Your task to perform on an android device: open app "Fetch Rewards" Image 0: 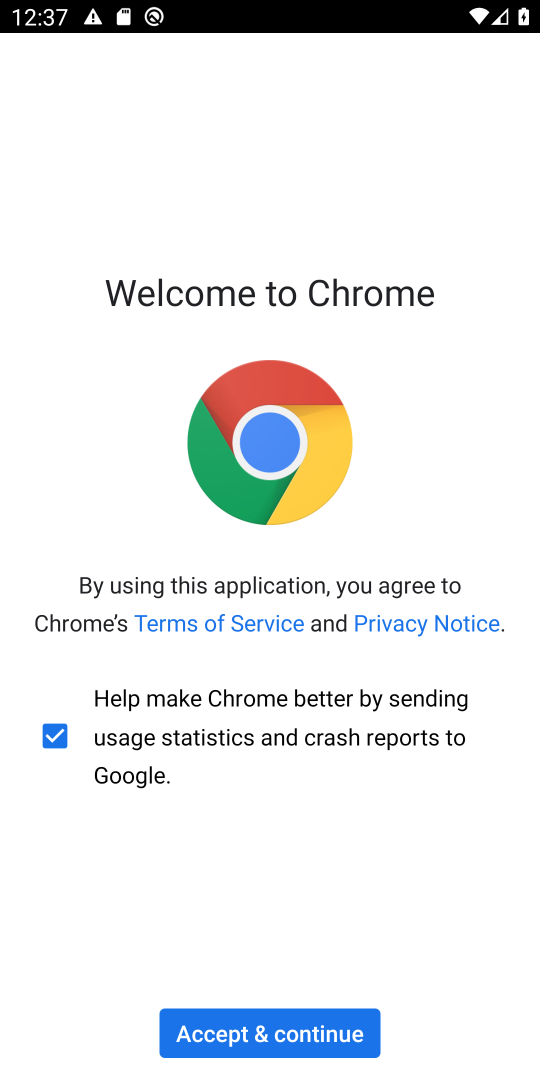
Step 0: press home button
Your task to perform on an android device: open app "Fetch Rewards" Image 1: 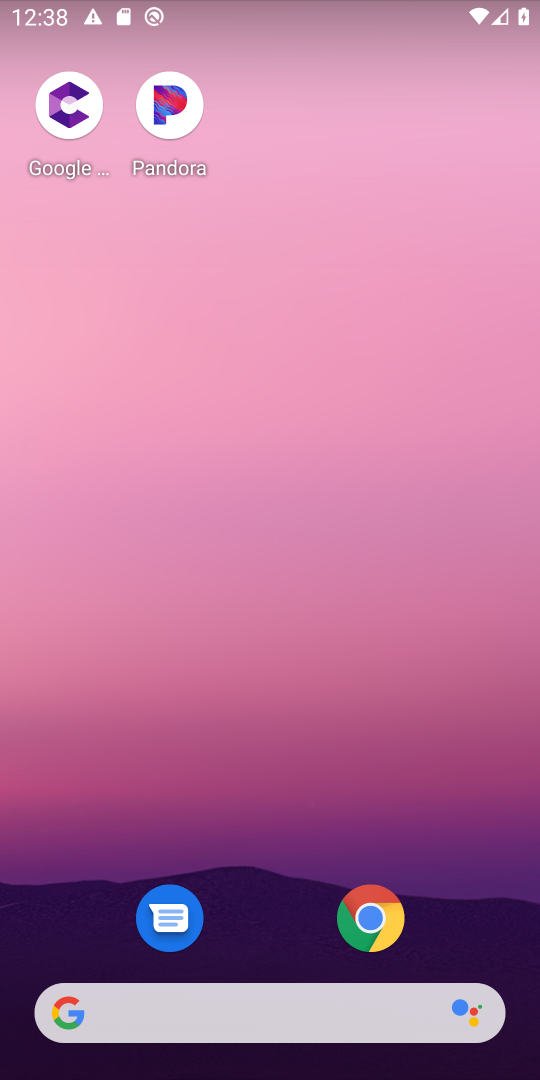
Step 1: drag from (296, 859) to (296, 10)
Your task to perform on an android device: open app "Fetch Rewards" Image 2: 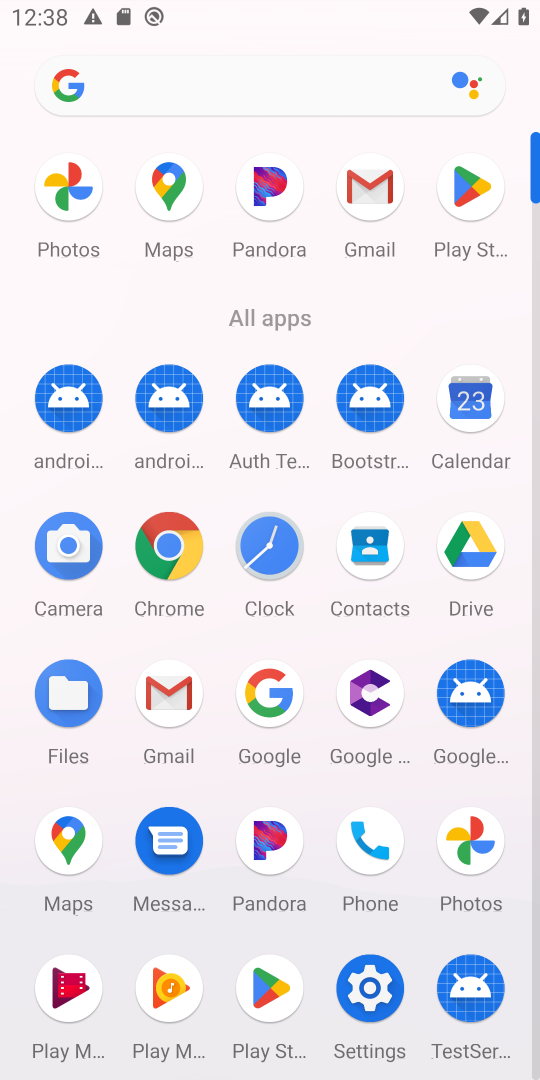
Step 2: click (456, 181)
Your task to perform on an android device: open app "Fetch Rewards" Image 3: 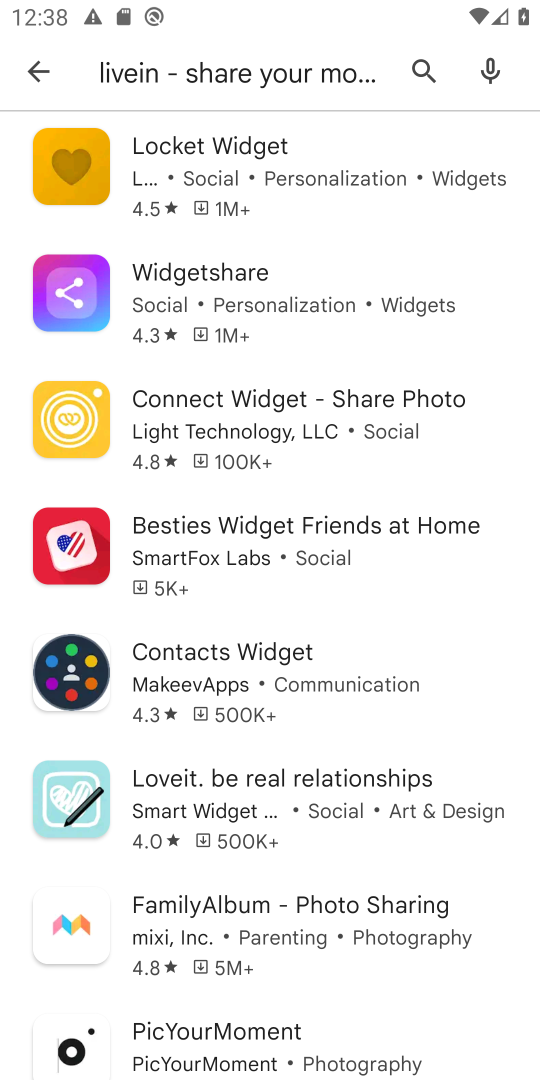
Step 3: click (436, 74)
Your task to perform on an android device: open app "Fetch Rewards" Image 4: 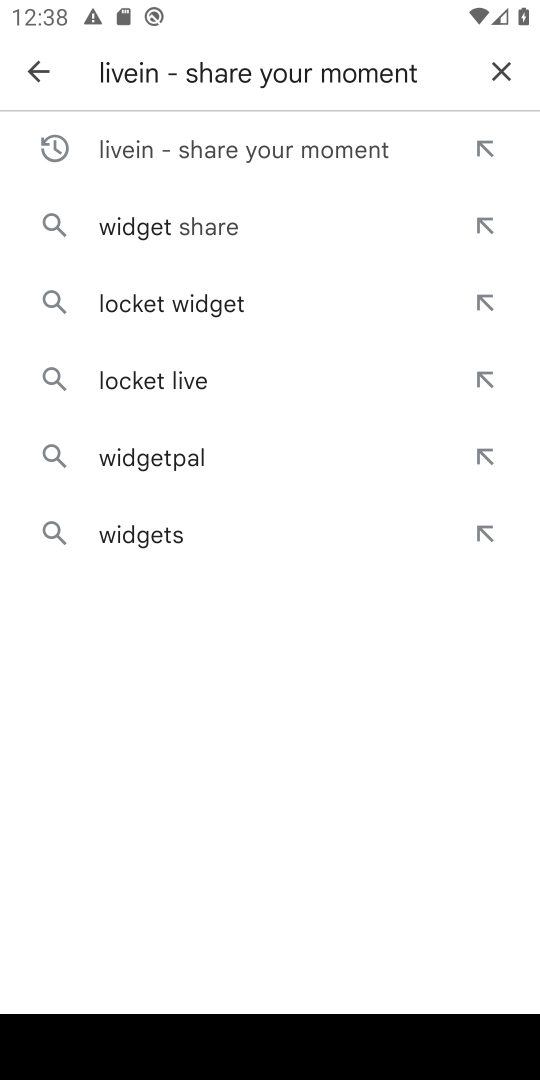
Step 4: click (503, 74)
Your task to perform on an android device: open app "Fetch Rewards" Image 5: 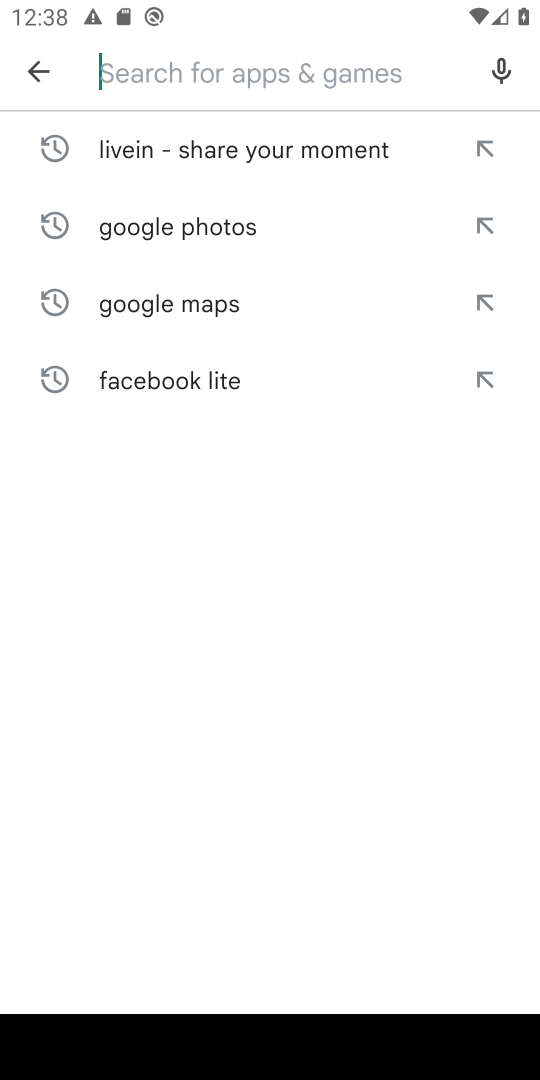
Step 5: type "Fetch Rewards"
Your task to perform on an android device: open app "Fetch Rewards" Image 6: 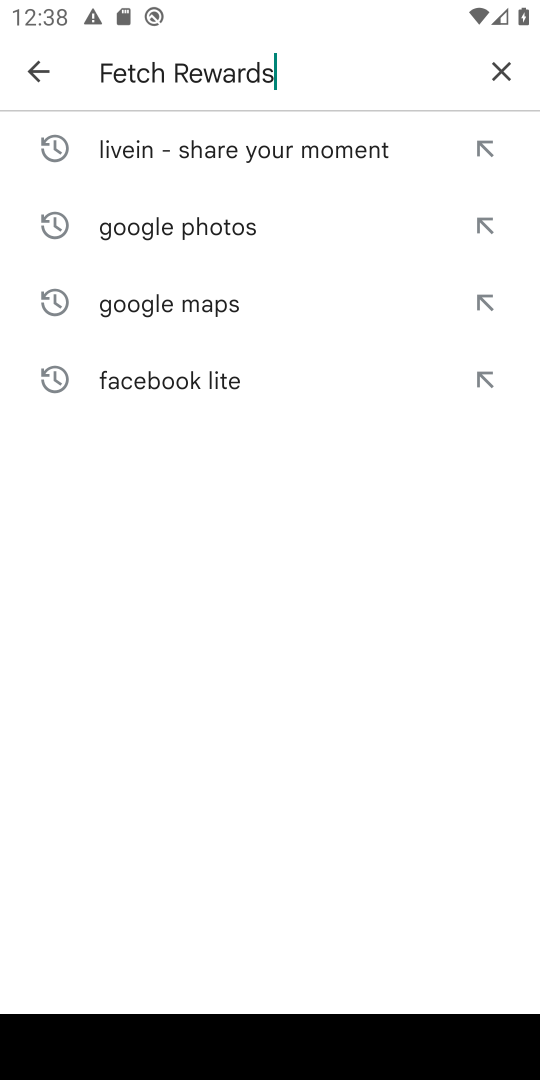
Step 6: type ""
Your task to perform on an android device: open app "Fetch Rewards" Image 7: 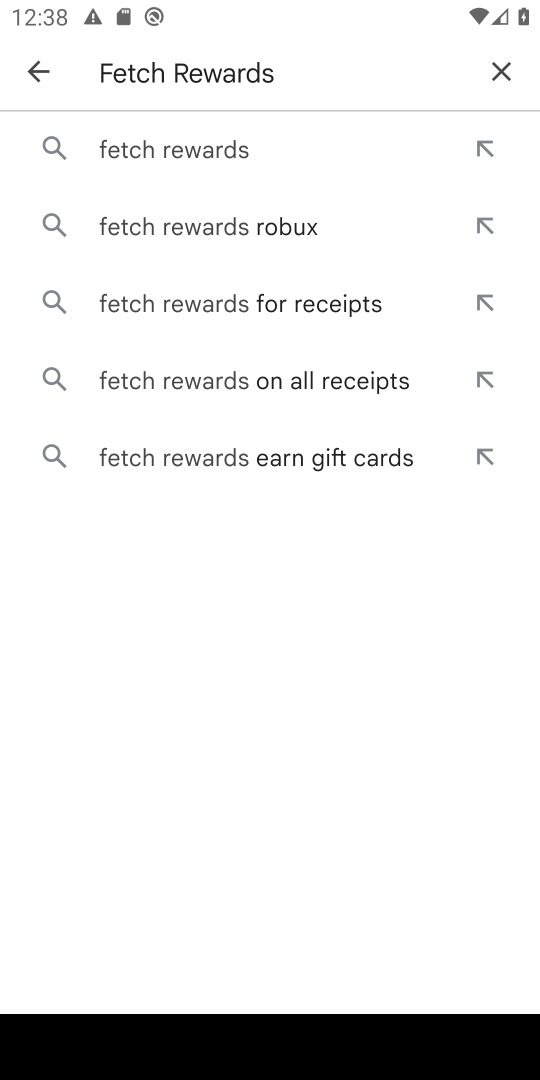
Step 7: click (278, 140)
Your task to perform on an android device: open app "Fetch Rewards" Image 8: 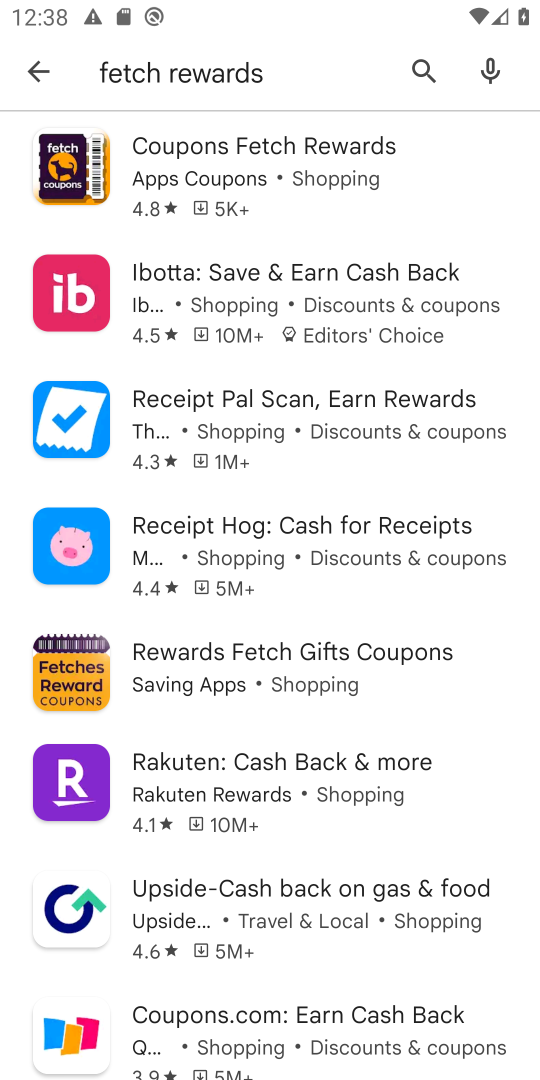
Step 8: task complete